Your task to perform on an android device: uninstall "Chime – Mobile Banking" Image 0: 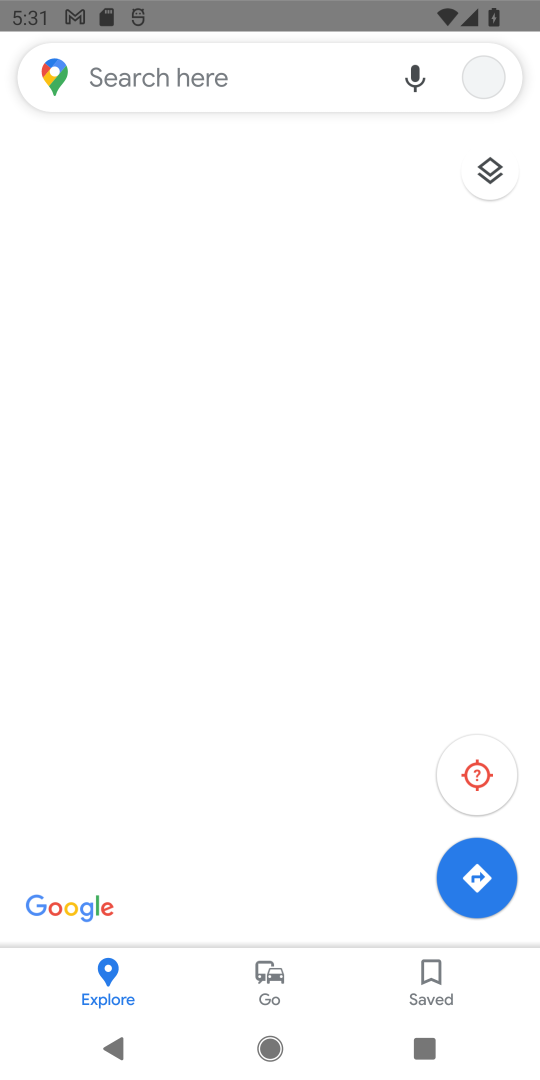
Step 0: click (43, 70)
Your task to perform on an android device: uninstall "Chime – Mobile Banking" Image 1: 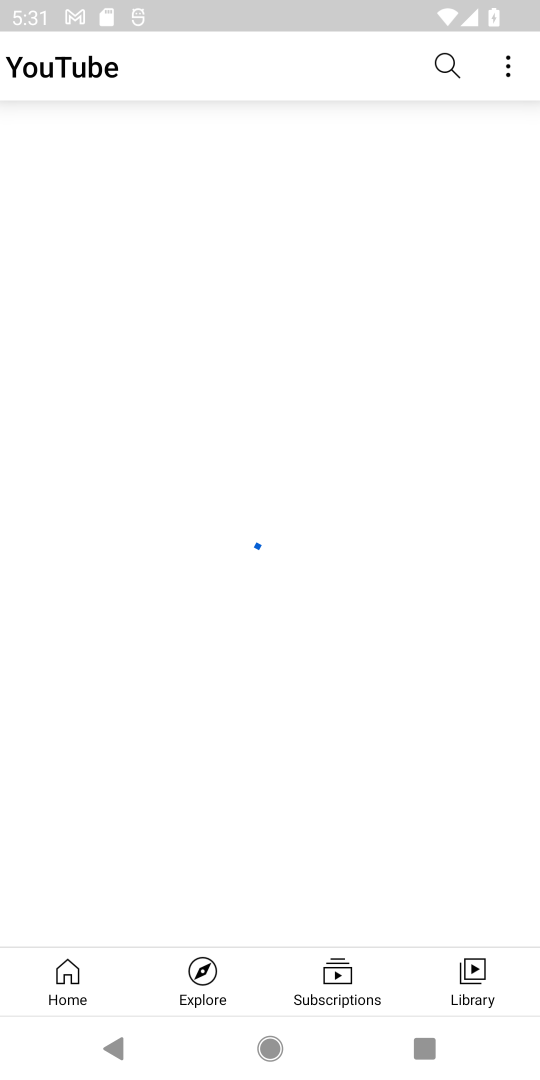
Step 1: press back button
Your task to perform on an android device: uninstall "Chime – Mobile Banking" Image 2: 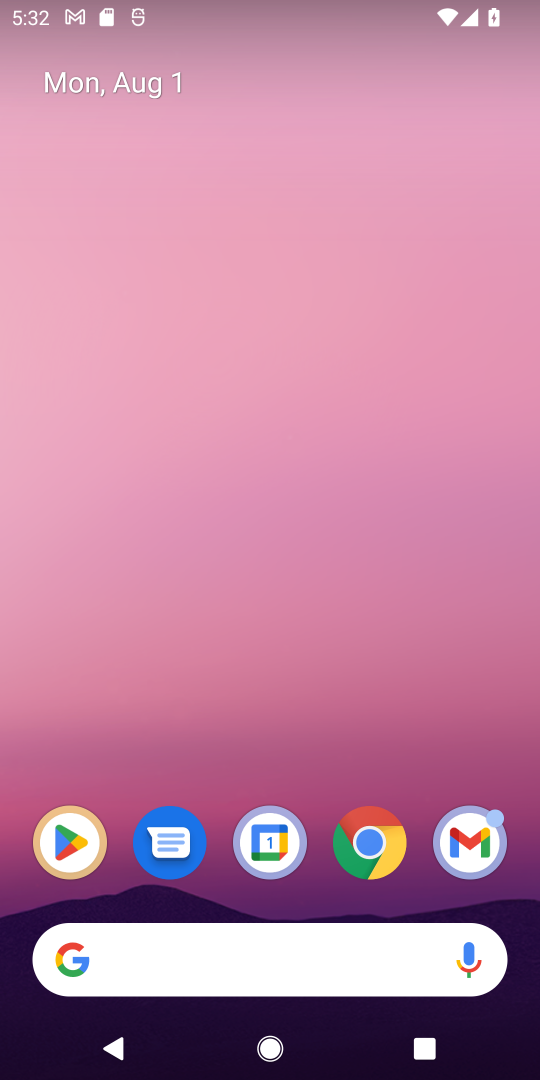
Step 2: drag from (332, 497) to (258, 77)
Your task to perform on an android device: uninstall "Chime – Mobile Banking" Image 3: 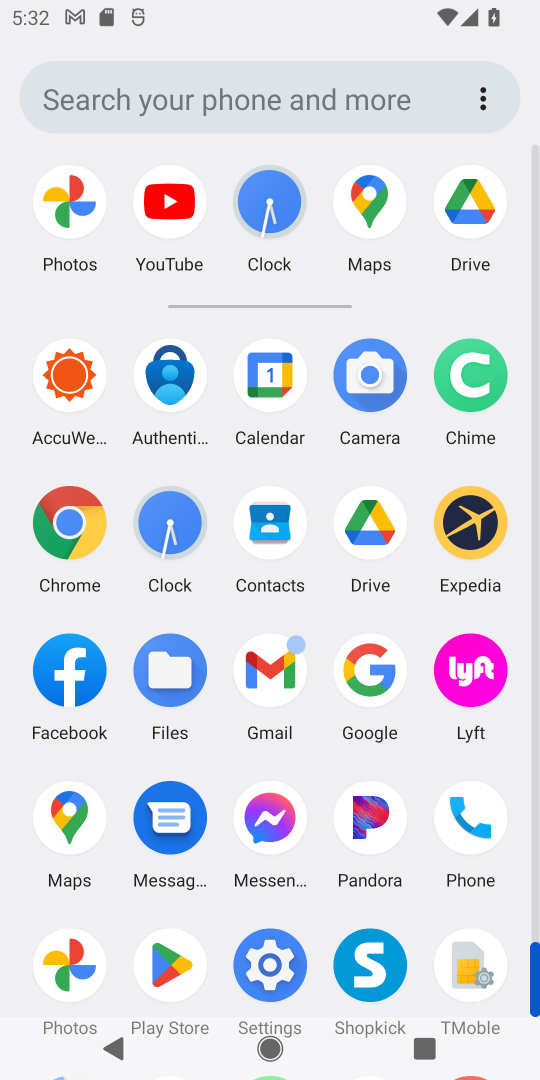
Step 3: click (160, 965)
Your task to perform on an android device: uninstall "Chime – Mobile Banking" Image 4: 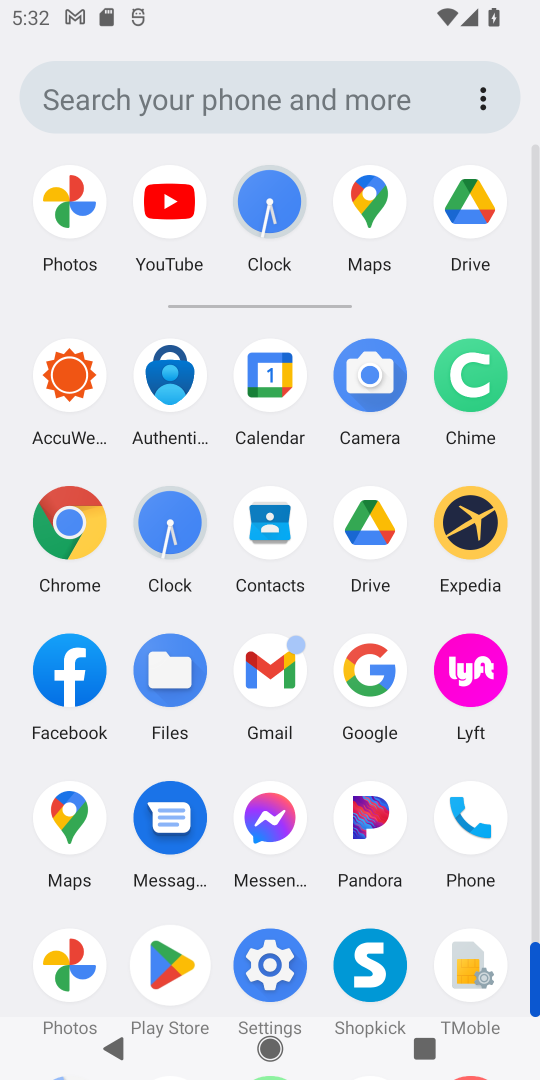
Step 4: click (172, 972)
Your task to perform on an android device: uninstall "Chime – Mobile Banking" Image 5: 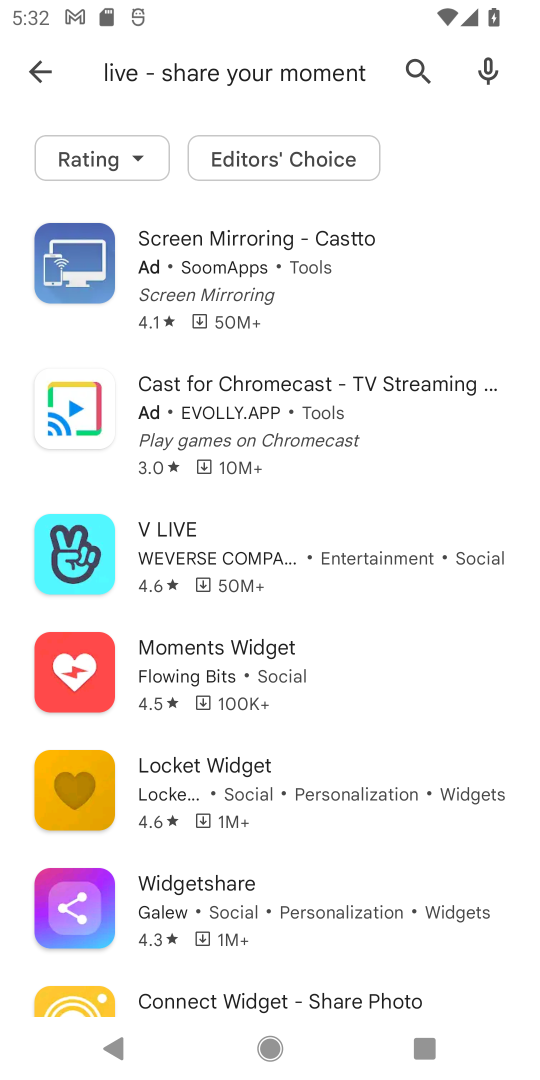
Step 5: click (36, 73)
Your task to perform on an android device: uninstall "Chime – Mobile Banking" Image 6: 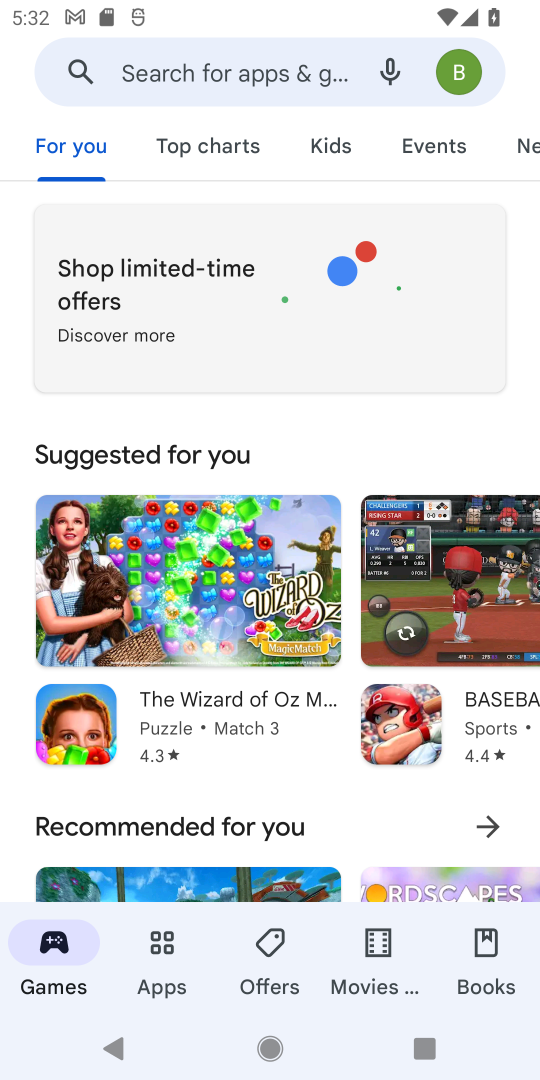
Step 6: click (151, 64)
Your task to perform on an android device: uninstall "Chime – Mobile Banking" Image 7: 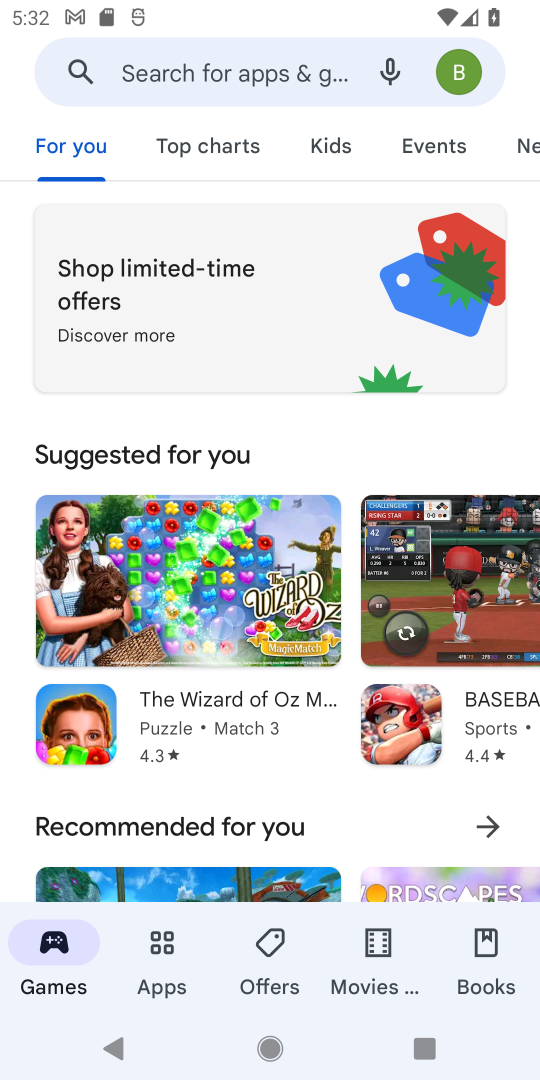
Step 7: click (151, 64)
Your task to perform on an android device: uninstall "Chime – Mobile Banking" Image 8: 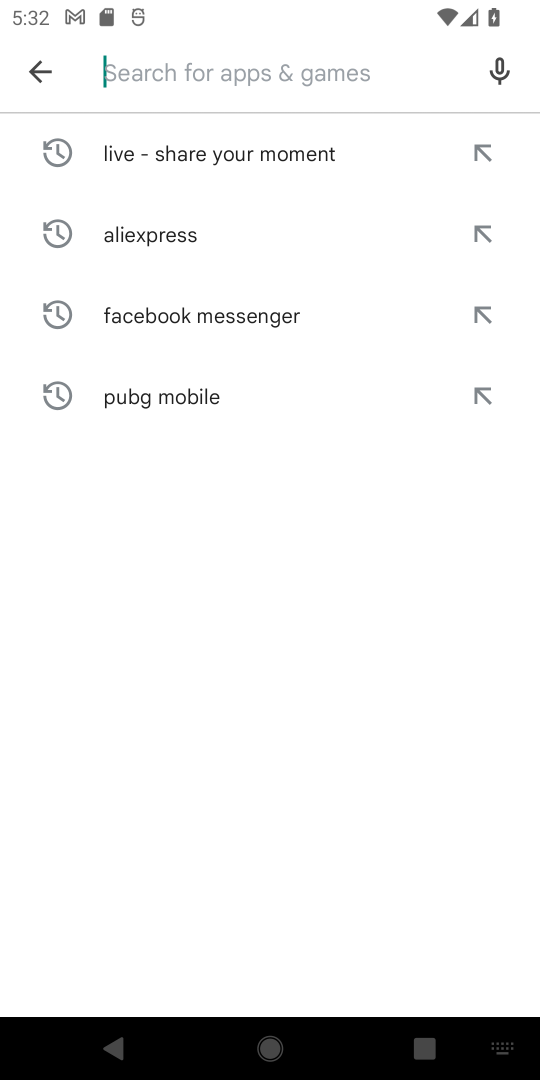
Step 8: type "Chime - Mobile Banking"
Your task to perform on an android device: uninstall "Chime – Mobile Banking" Image 9: 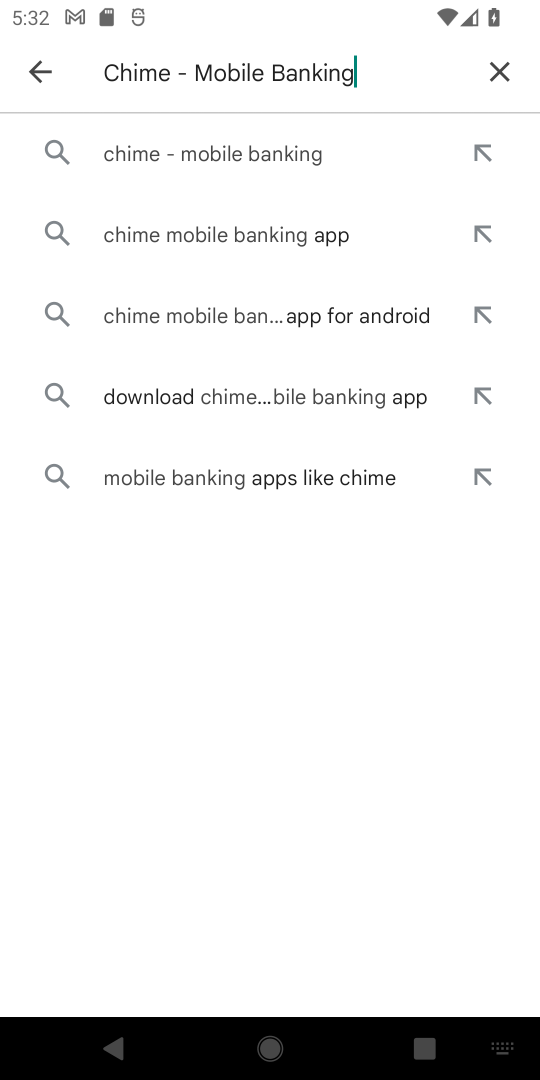
Step 9: click (250, 150)
Your task to perform on an android device: uninstall "Chime – Mobile Banking" Image 10: 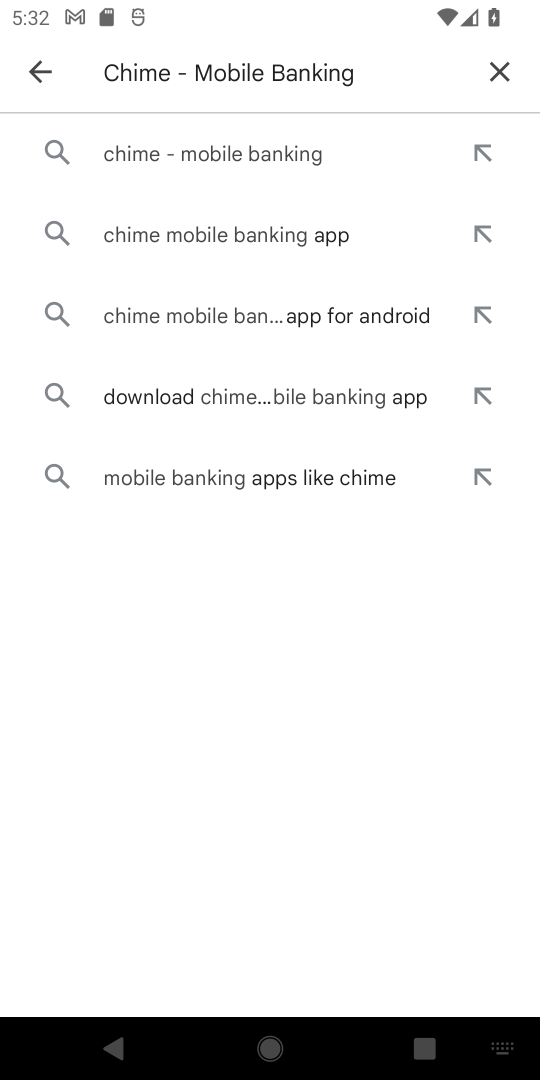
Step 10: click (258, 151)
Your task to perform on an android device: uninstall "Chime – Mobile Banking" Image 11: 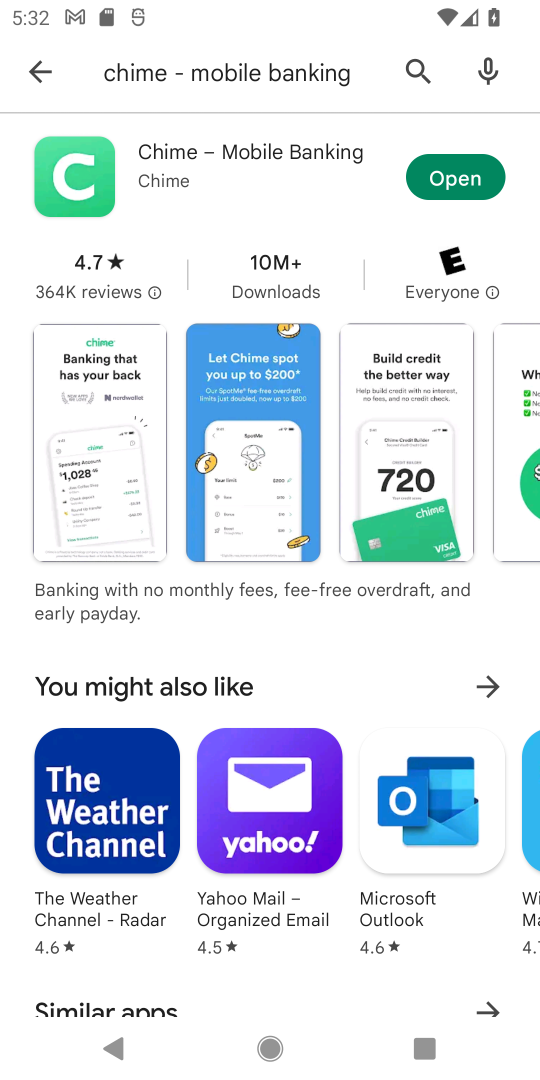
Step 11: click (464, 177)
Your task to perform on an android device: uninstall "Chime – Mobile Banking" Image 12: 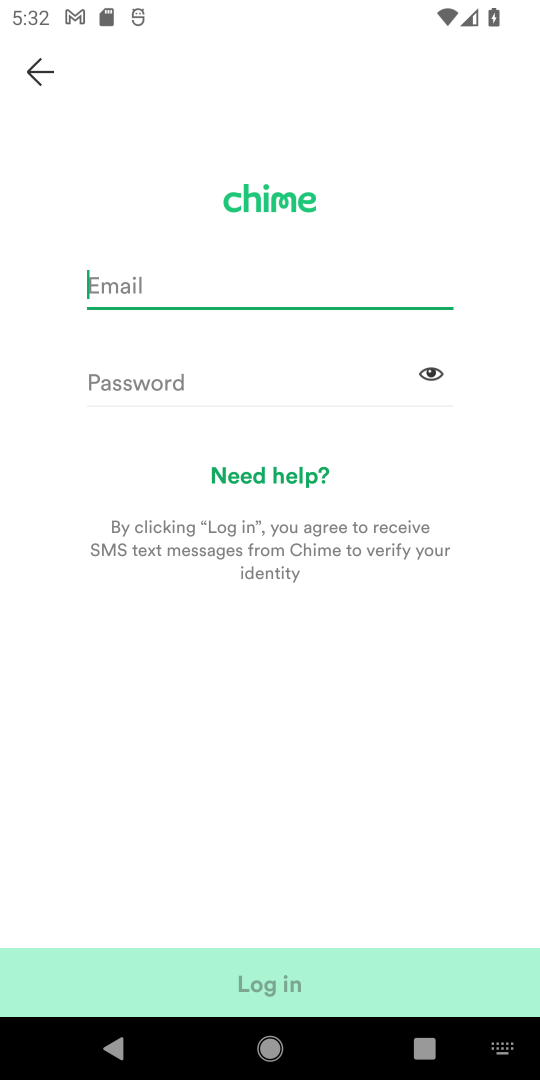
Step 12: click (9, 76)
Your task to perform on an android device: uninstall "Chime – Mobile Banking" Image 13: 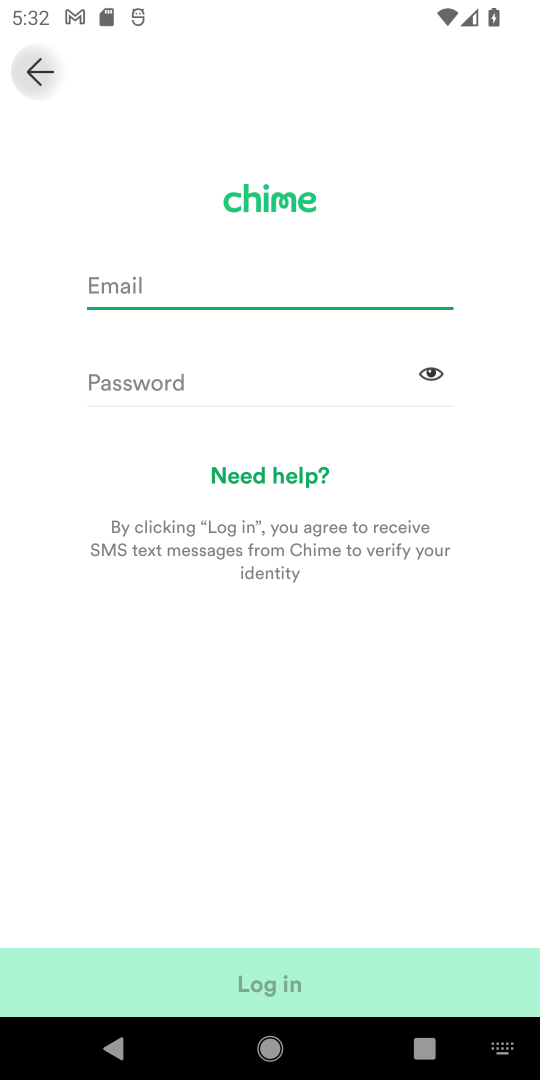
Step 13: click (40, 56)
Your task to perform on an android device: uninstall "Chime – Mobile Banking" Image 14: 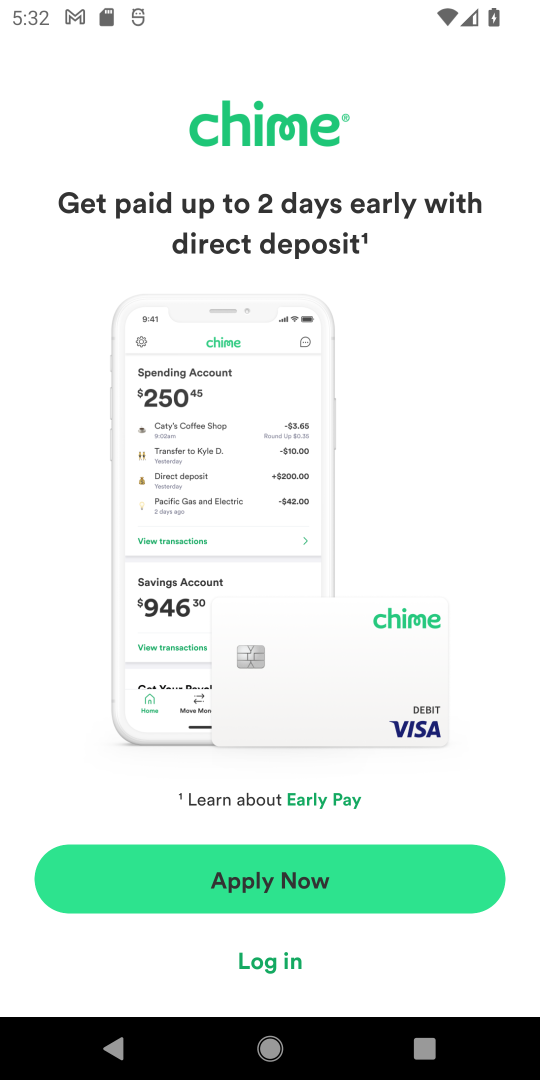
Step 14: click (105, 130)
Your task to perform on an android device: uninstall "Chime – Mobile Banking" Image 15: 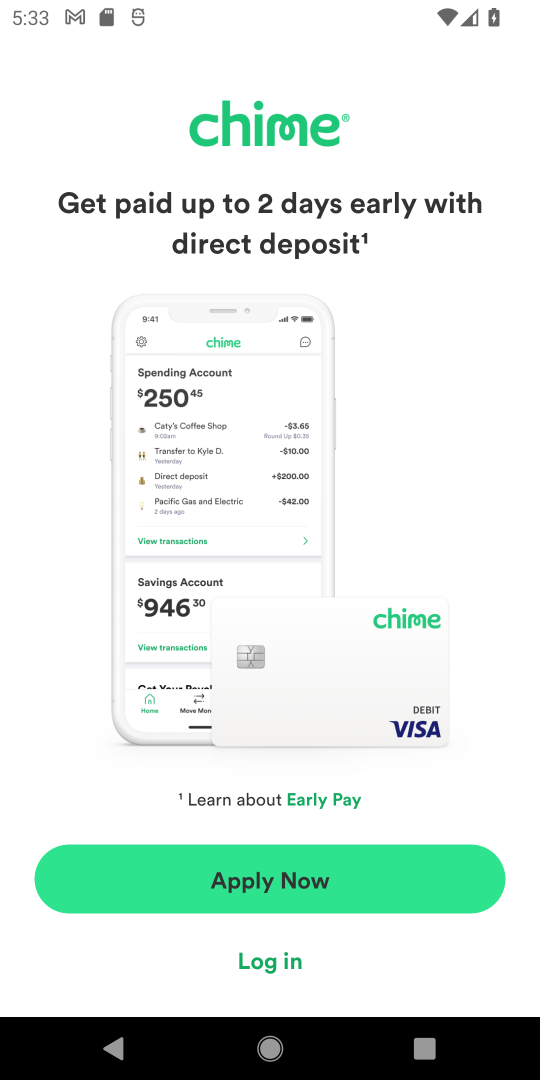
Step 15: click (104, 130)
Your task to perform on an android device: uninstall "Chime – Mobile Banking" Image 16: 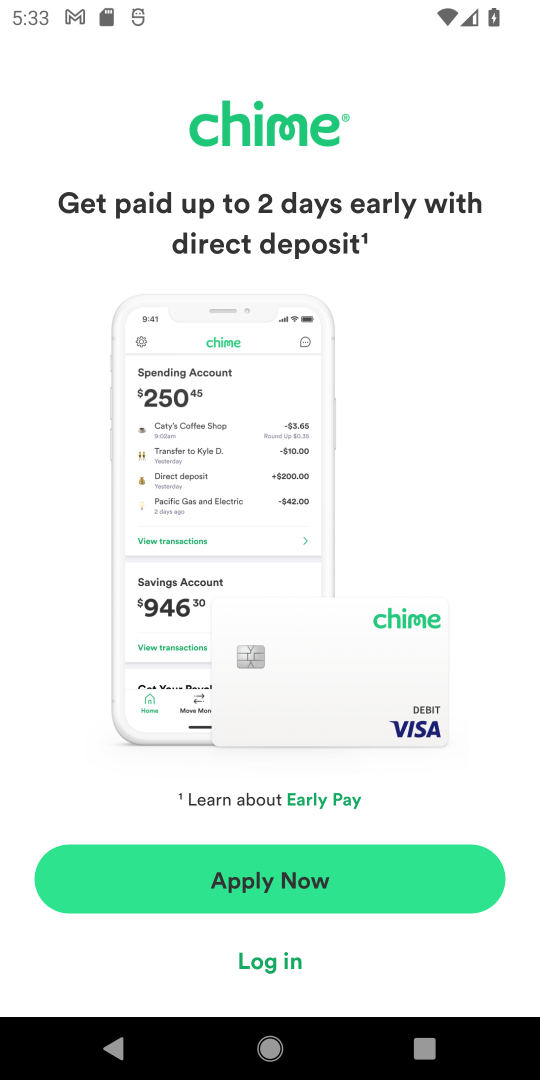
Step 16: click (417, 71)
Your task to perform on an android device: uninstall "Chime – Mobile Banking" Image 17: 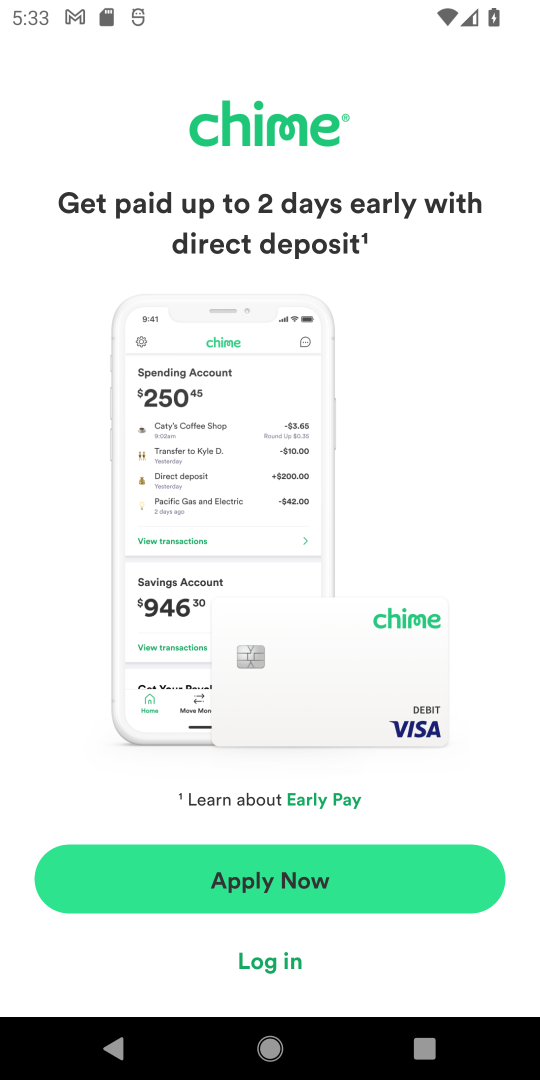
Step 17: click (417, 77)
Your task to perform on an android device: uninstall "Chime – Mobile Banking" Image 18: 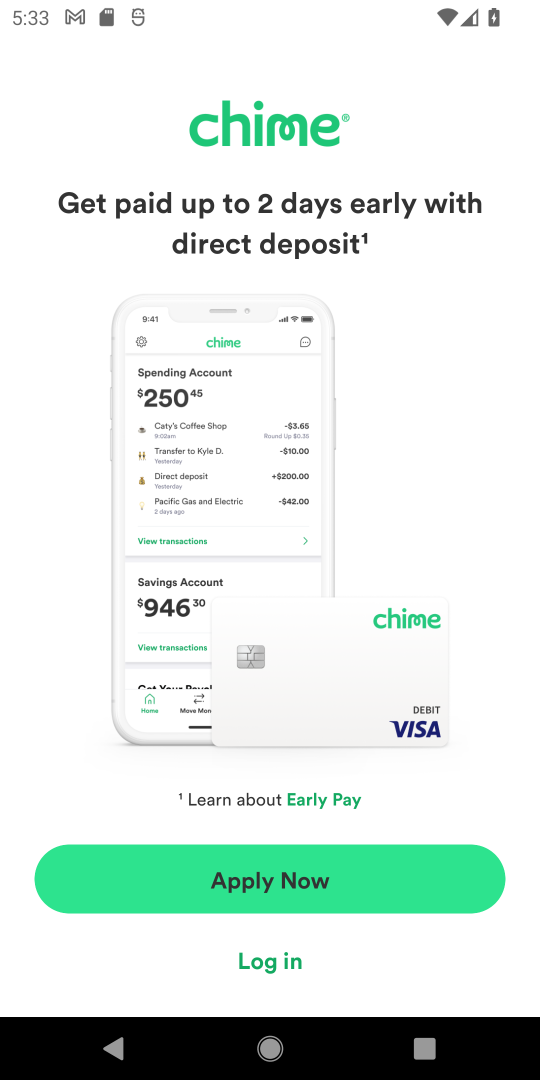
Step 18: click (417, 77)
Your task to perform on an android device: uninstall "Chime – Mobile Banking" Image 19: 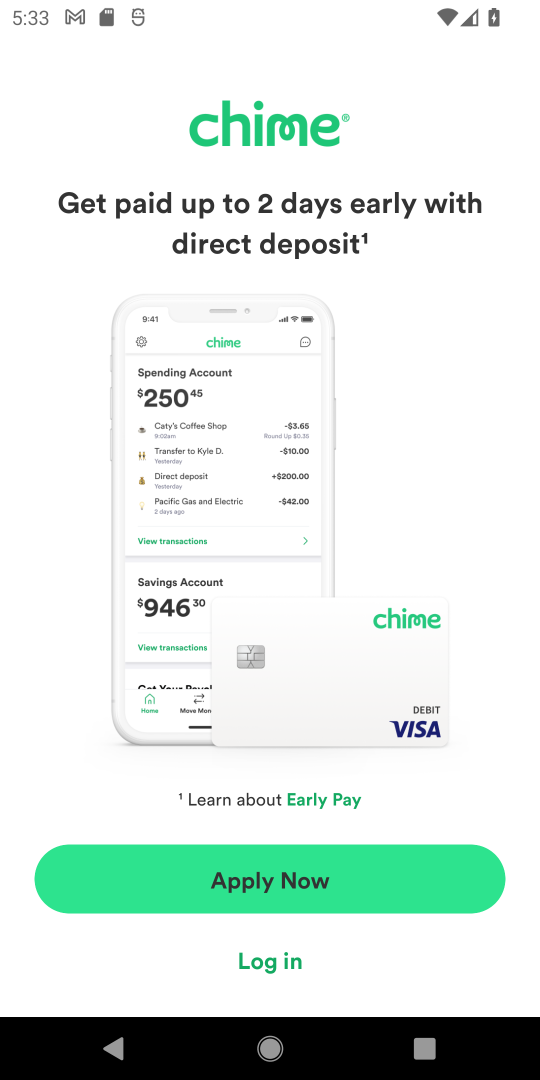
Step 19: click (441, 102)
Your task to perform on an android device: uninstall "Chime – Mobile Banking" Image 20: 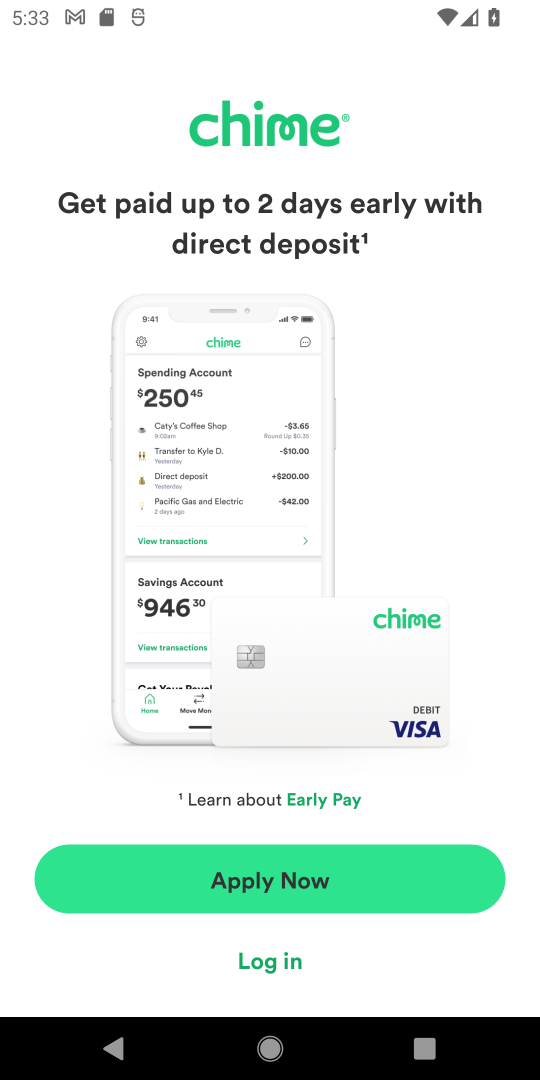
Step 20: task complete